Your task to perform on an android device: toggle location history Image 0: 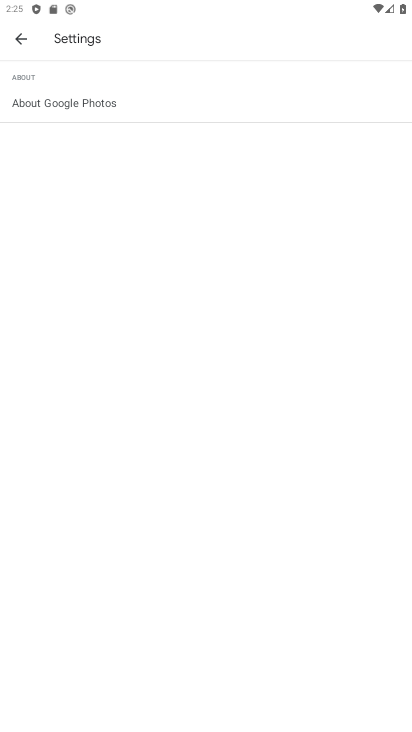
Step 0: press home button
Your task to perform on an android device: toggle location history Image 1: 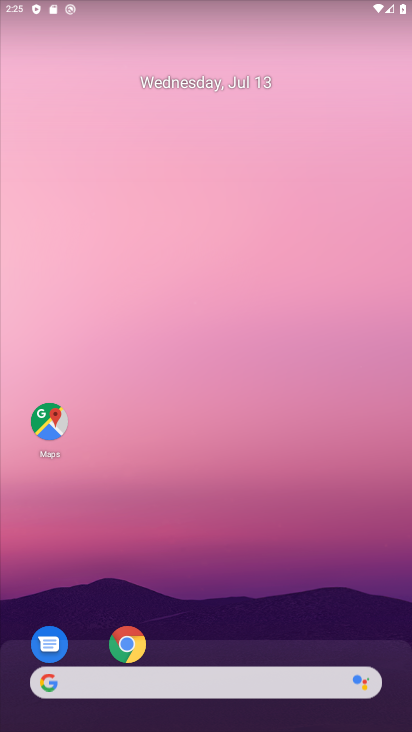
Step 1: drag from (193, 702) to (276, 113)
Your task to perform on an android device: toggle location history Image 2: 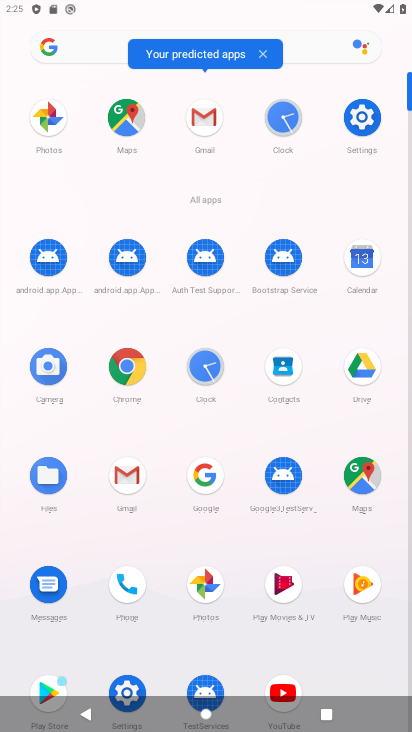
Step 2: click (126, 696)
Your task to perform on an android device: toggle location history Image 3: 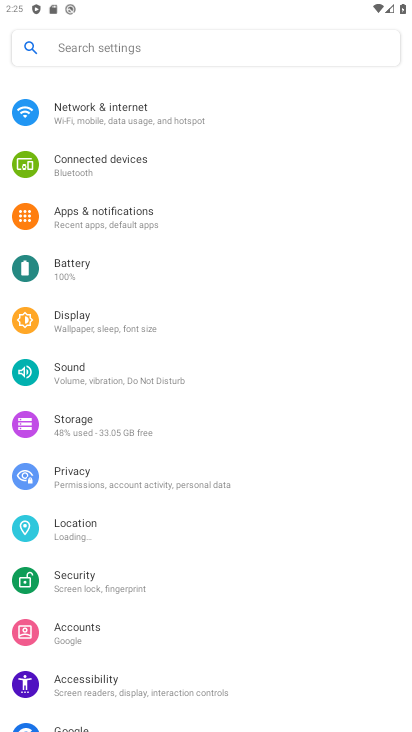
Step 3: drag from (187, 603) to (272, 263)
Your task to perform on an android device: toggle location history Image 4: 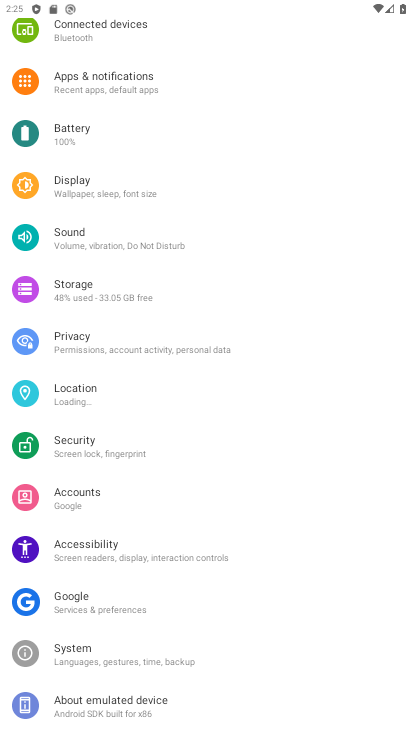
Step 4: click (96, 404)
Your task to perform on an android device: toggle location history Image 5: 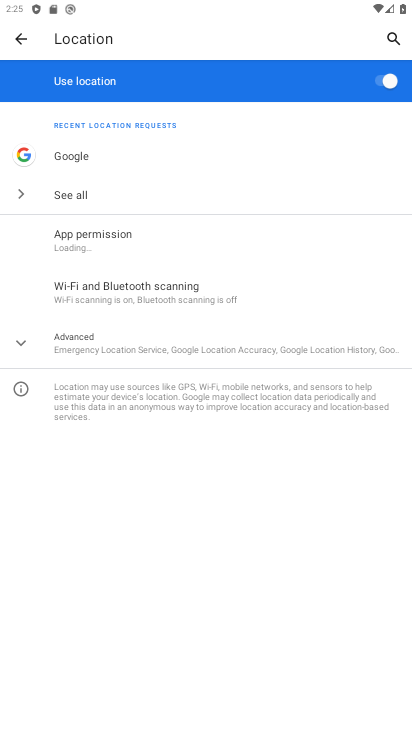
Step 5: click (127, 353)
Your task to perform on an android device: toggle location history Image 6: 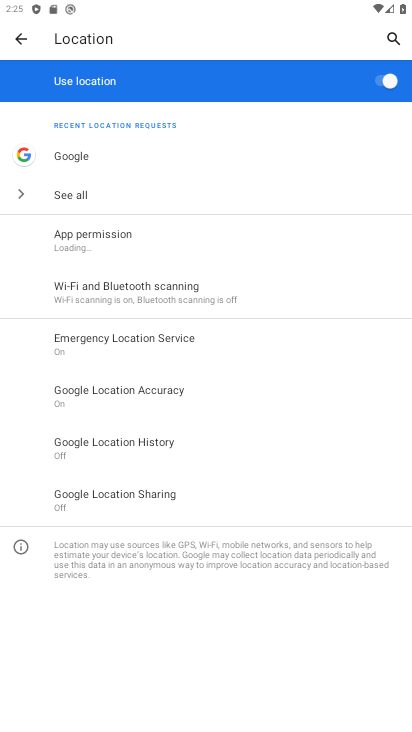
Step 6: click (156, 448)
Your task to perform on an android device: toggle location history Image 7: 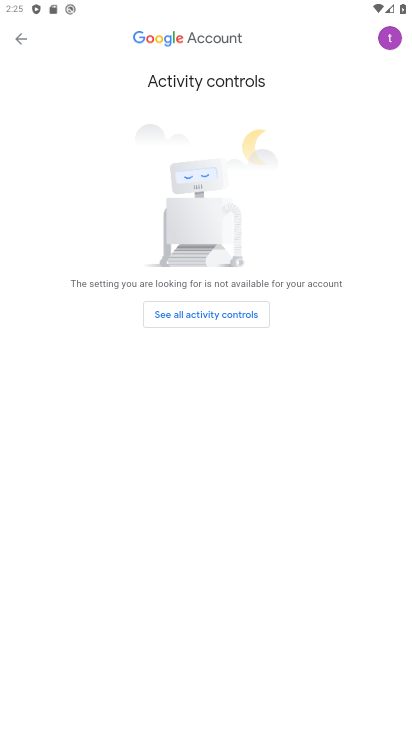
Step 7: task complete